Your task to perform on an android device: Open CNN.com Image 0: 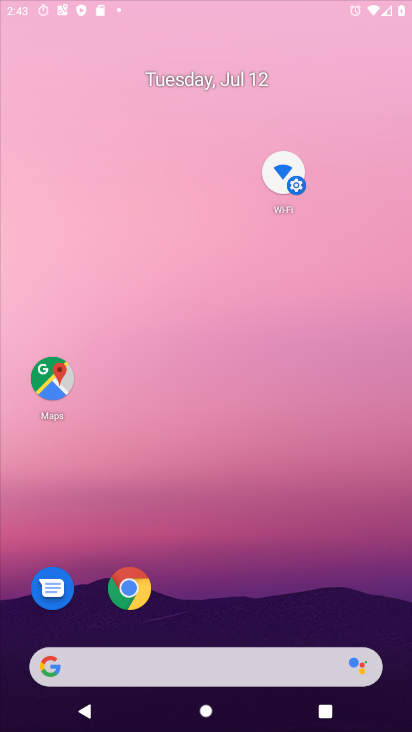
Step 0: click (291, 146)
Your task to perform on an android device: Open CNN.com Image 1: 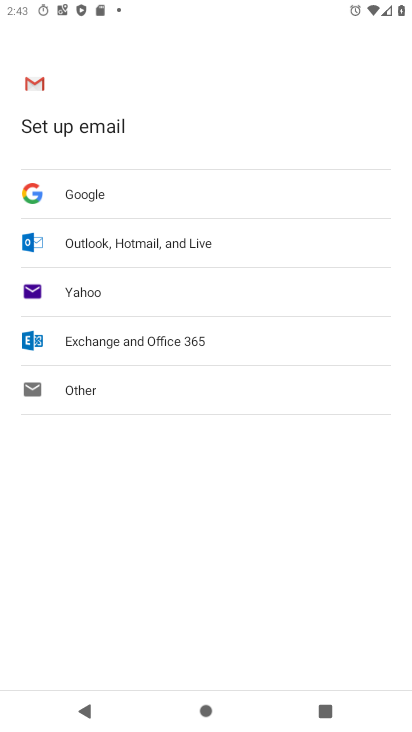
Step 1: drag from (190, 649) to (239, 151)
Your task to perform on an android device: Open CNN.com Image 2: 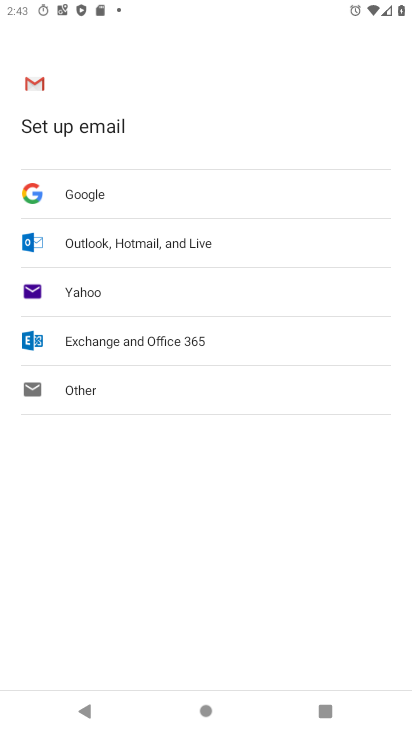
Step 2: press home button
Your task to perform on an android device: Open CNN.com Image 3: 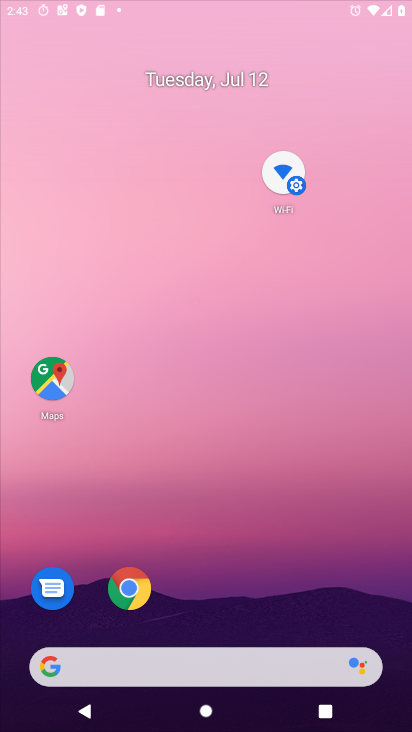
Step 3: drag from (241, 570) to (373, 127)
Your task to perform on an android device: Open CNN.com Image 4: 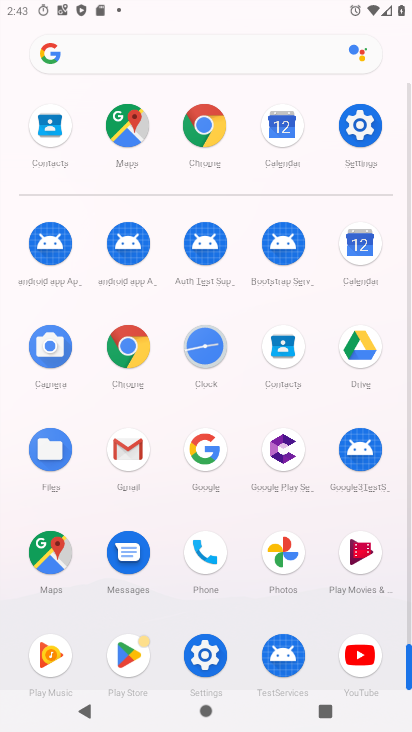
Step 4: click (146, 41)
Your task to perform on an android device: Open CNN.com Image 5: 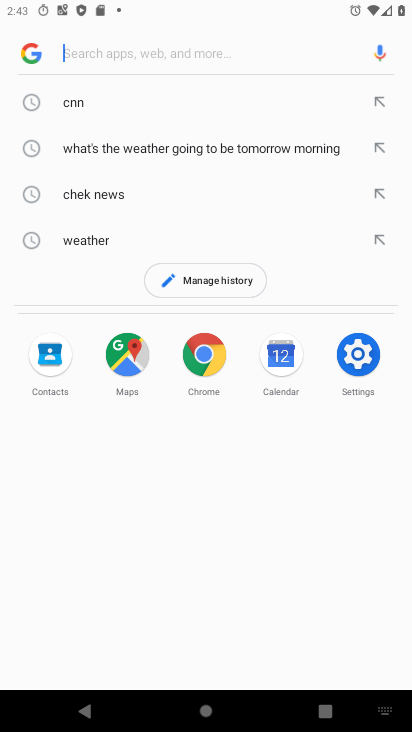
Step 5: click (79, 108)
Your task to perform on an android device: Open CNN.com Image 6: 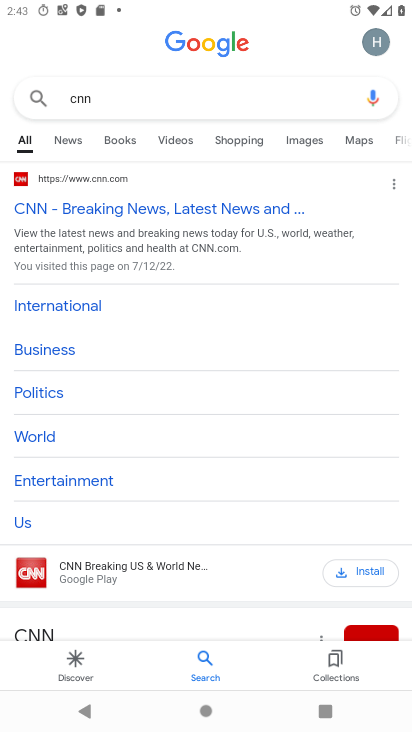
Step 6: click (127, 208)
Your task to perform on an android device: Open CNN.com Image 7: 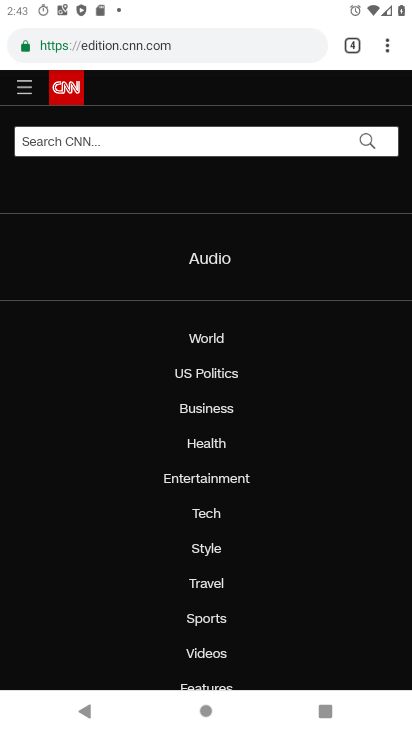
Step 7: task complete